Your task to perform on an android device: turn on translation in the chrome app Image 0: 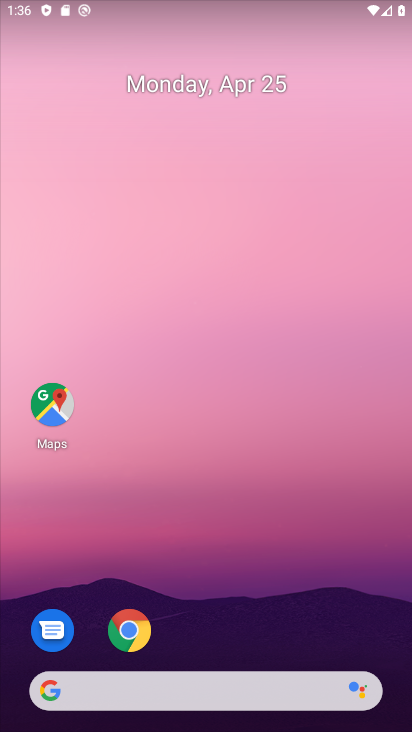
Step 0: drag from (206, 653) to (307, 1)
Your task to perform on an android device: turn on translation in the chrome app Image 1: 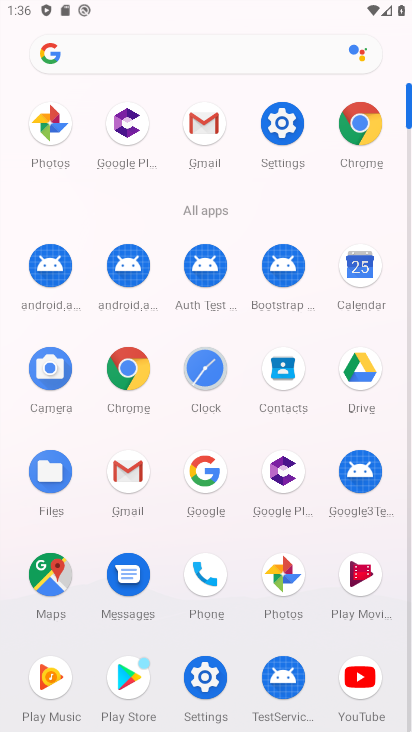
Step 1: click (130, 379)
Your task to perform on an android device: turn on translation in the chrome app Image 2: 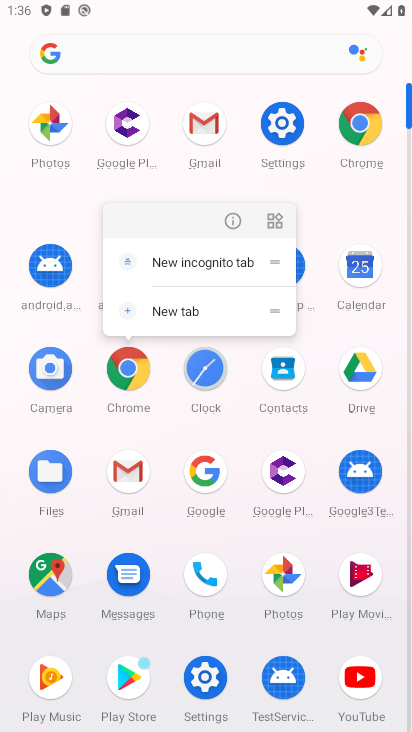
Step 2: click (140, 368)
Your task to perform on an android device: turn on translation in the chrome app Image 3: 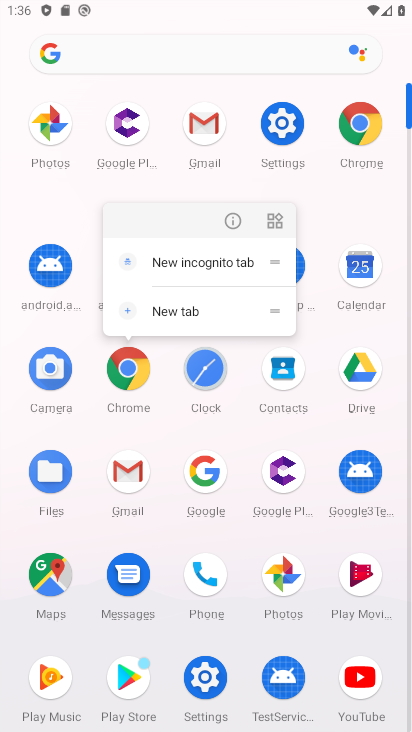
Step 3: click (124, 389)
Your task to perform on an android device: turn on translation in the chrome app Image 4: 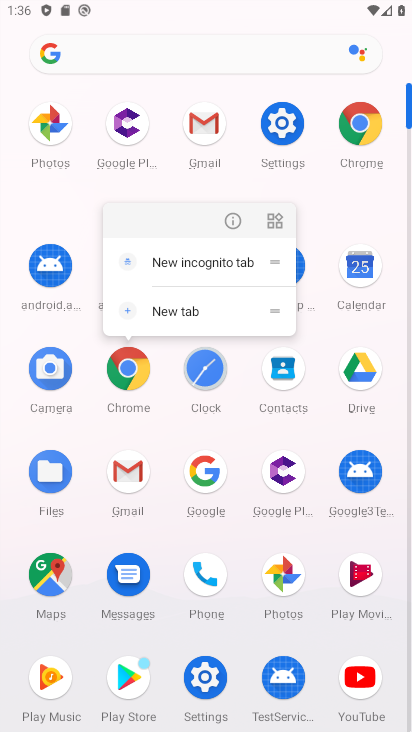
Step 4: click (131, 376)
Your task to perform on an android device: turn on translation in the chrome app Image 5: 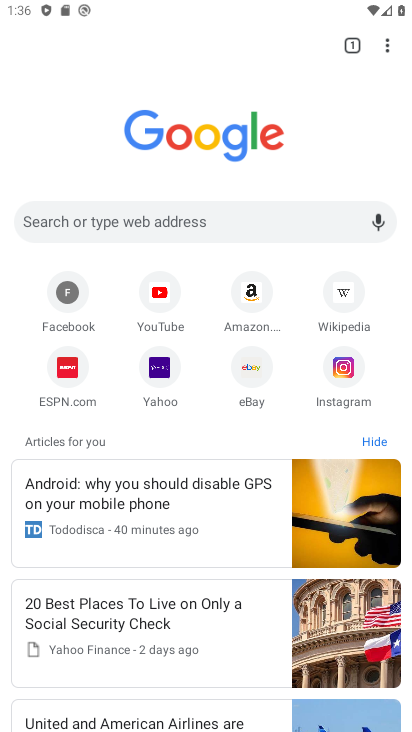
Step 5: drag from (389, 48) to (237, 380)
Your task to perform on an android device: turn on translation in the chrome app Image 6: 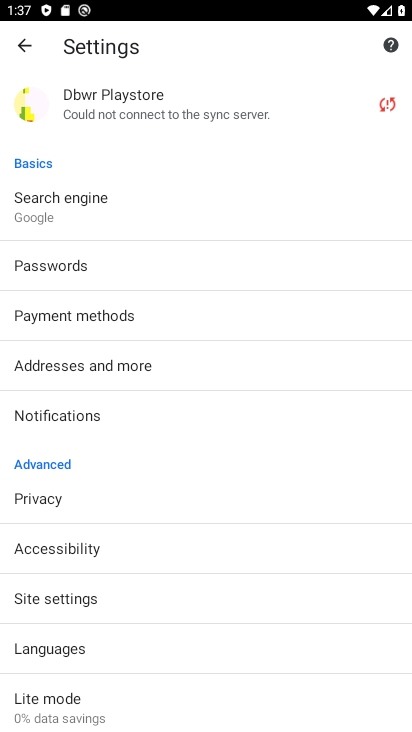
Step 6: click (76, 648)
Your task to perform on an android device: turn on translation in the chrome app Image 7: 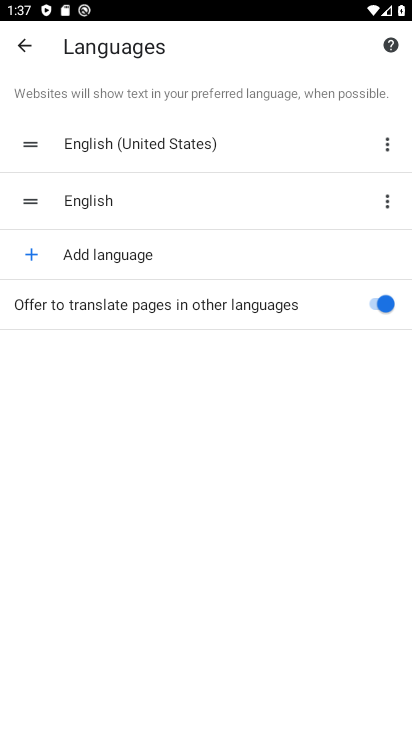
Step 7: click (373, 300)
Your task to perform on an android device: turn on translation in the chrome app Image 8: 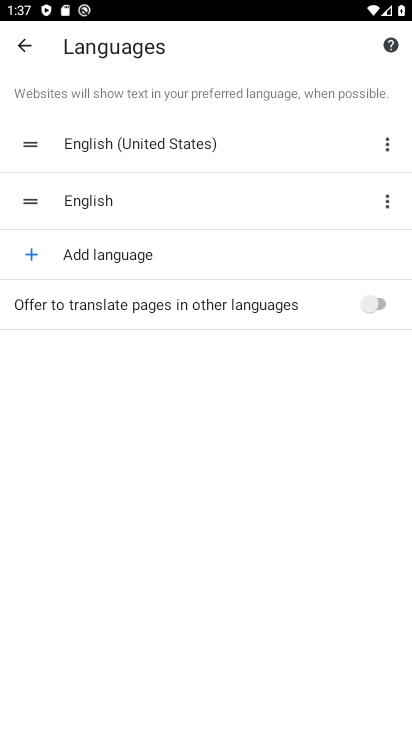
Step 8: click (366, 304)
Your task to perform on an android device: turn on translation in the chrome app Image 9: 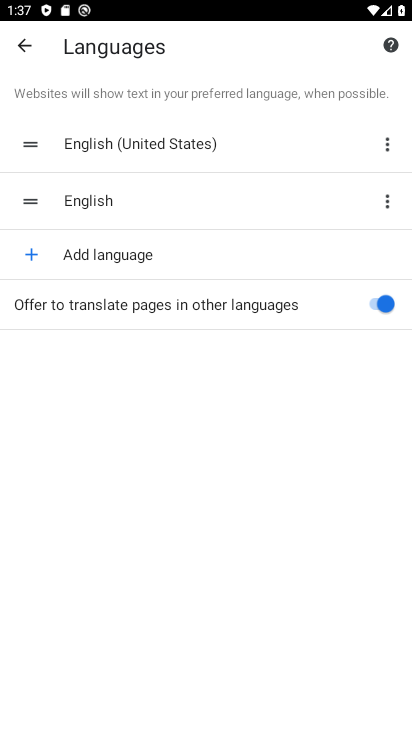
Step 9: task complete